Your task to perform on an android device: Clear all items from cart on amazon. Search for logitech g pro on amazon, select the first entry, add it to the cart, then select checkout. Image 0: 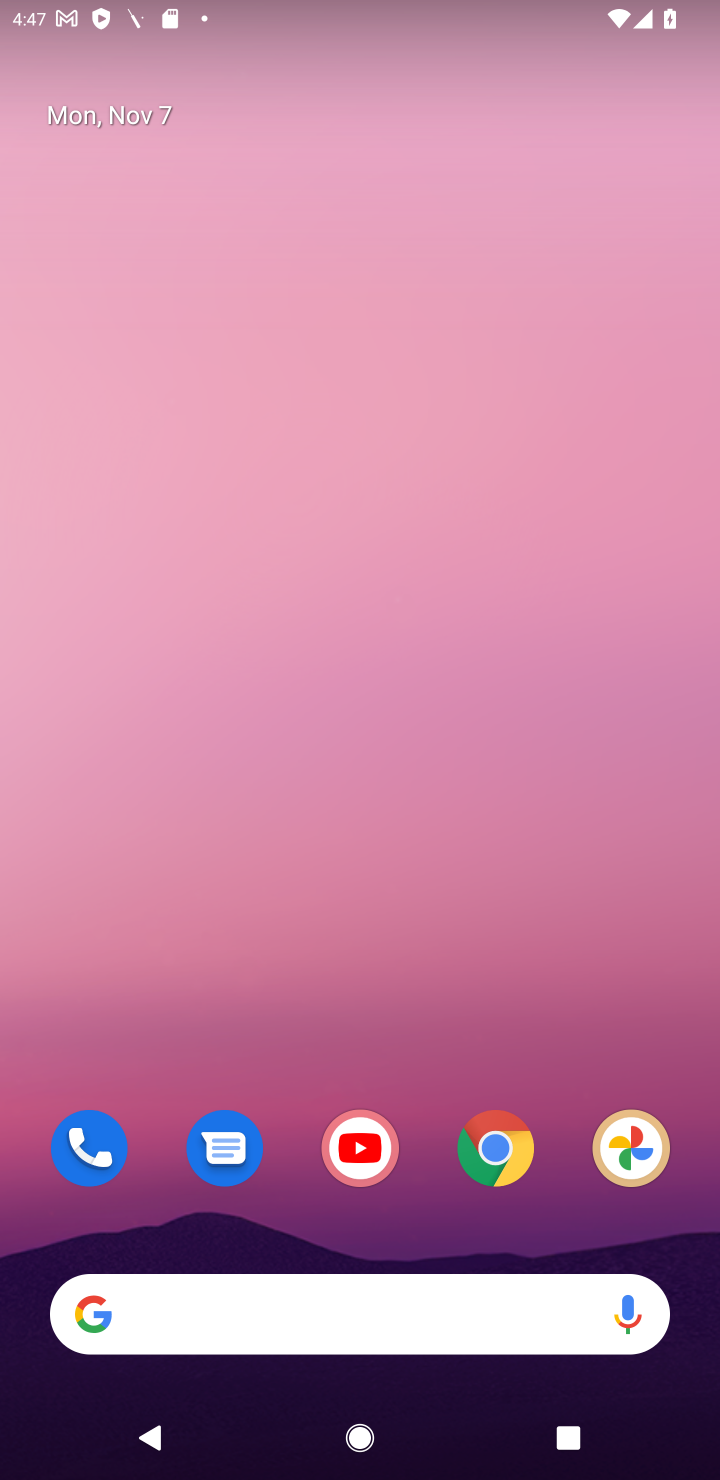
Step 0: click (494, 1151)
Your task to perform on an android device: Clear all items from cart on amazon. Search for logitech g pro on amazon, select the first entry, add it to the cart, then select checkout. Image 1: 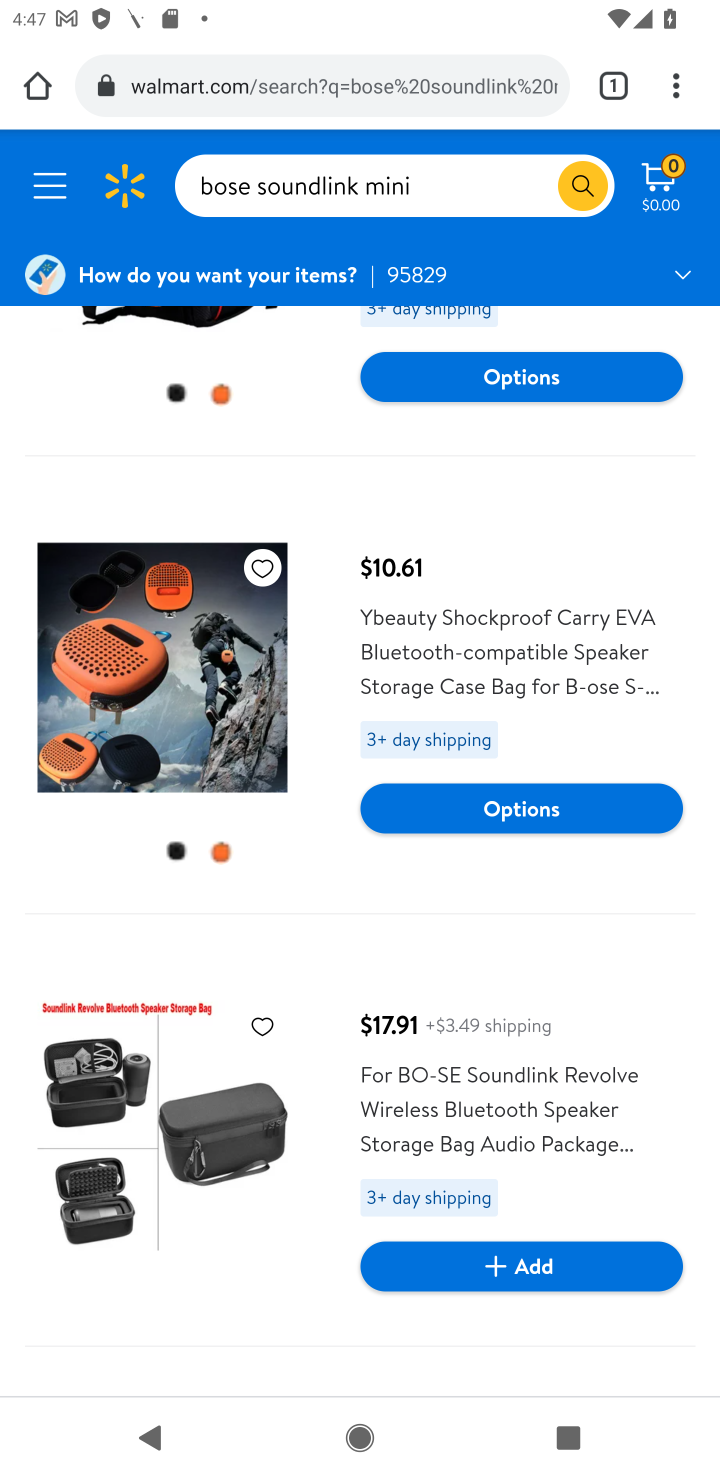
Step 1: click (382, 56)
Your task to perform on an android device: Clear all items from cart on amazon. Search for logitech g pro on amazon, select the first entry, add it to the cart, then select checkout. Image 2: 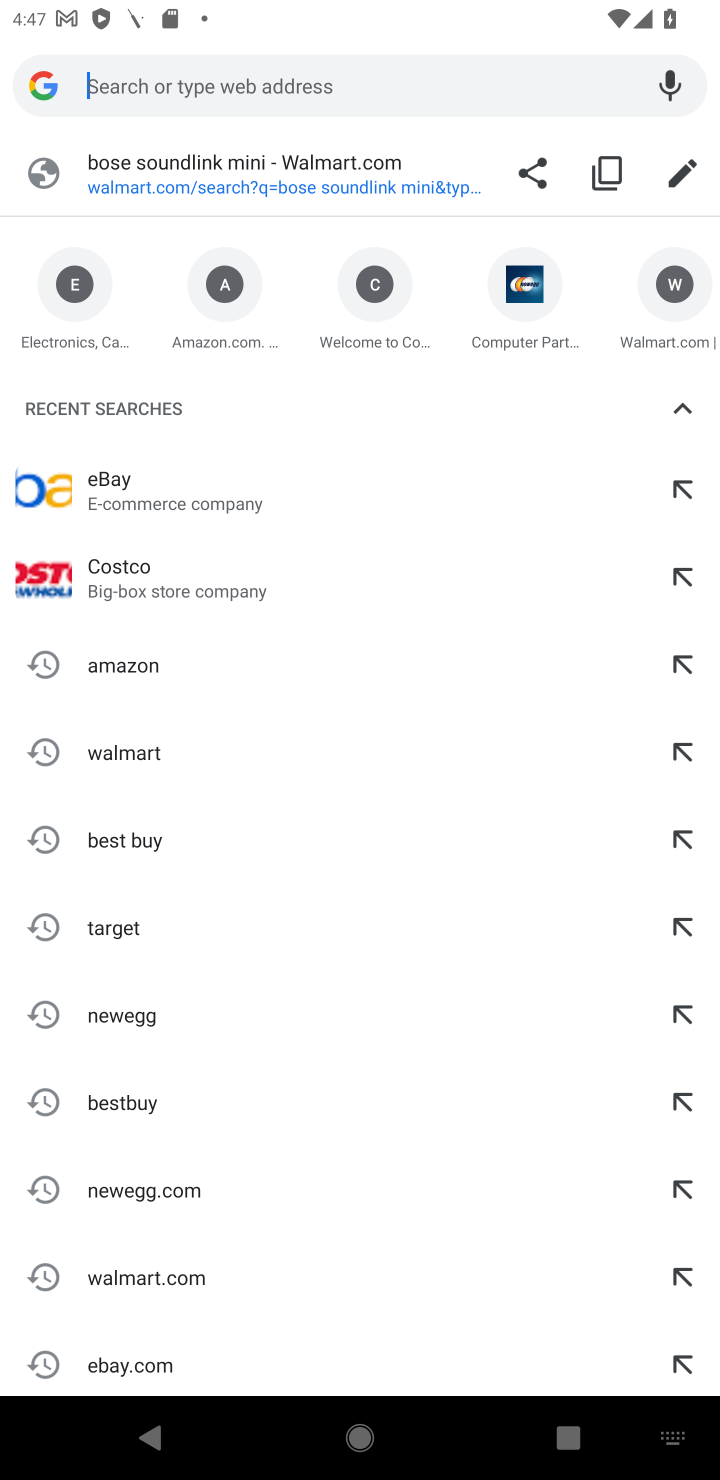
Step 2: click (106, 671)
Your task to perform on an android device: Clear all items from cart on amazon. Search for logitech g pro on amazon, select the first entry, add it to the cart, then select checkout. Image 3: 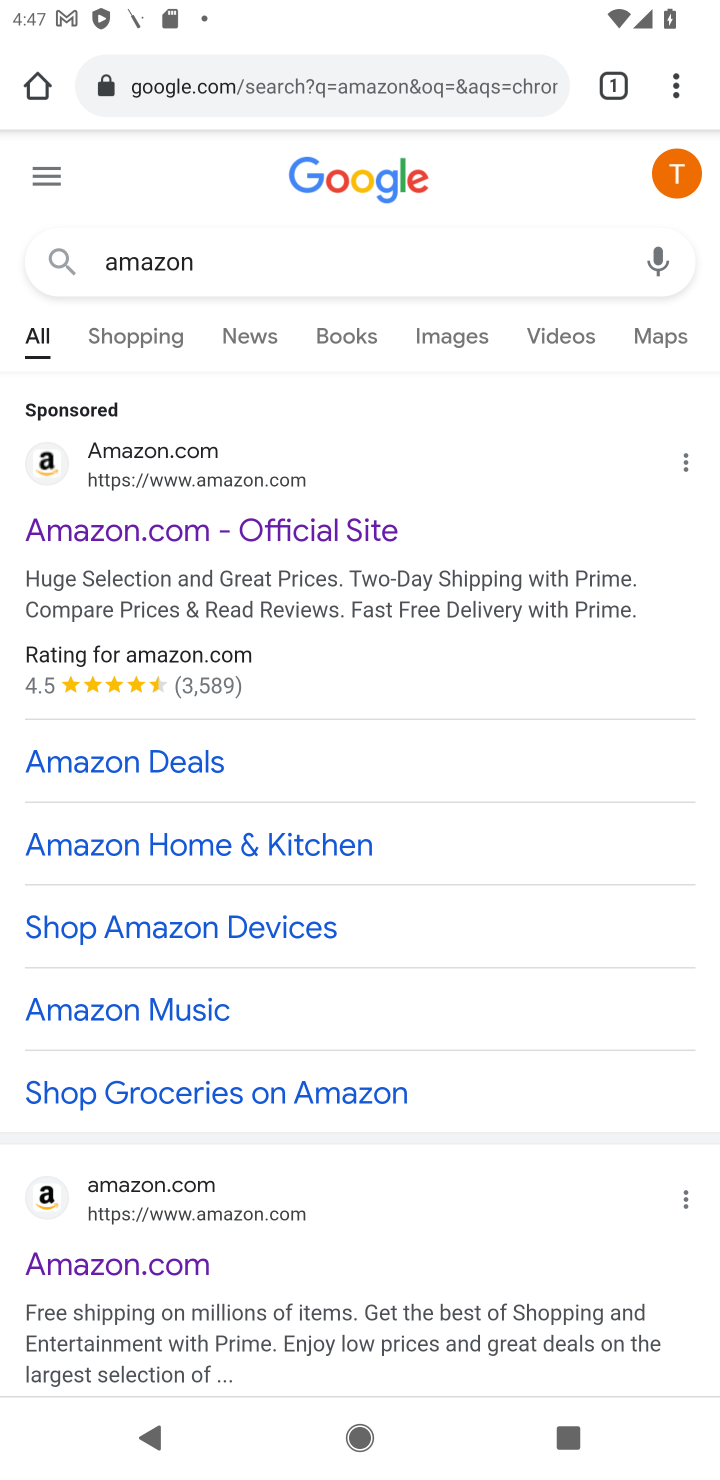
Step 3: click (116, 531)
Your task to perform on an android device: Clear all items from cart on amazon. Search for logitech g pro on amazon, select the first entry, add it to the cart, then select checkout. Image 4: 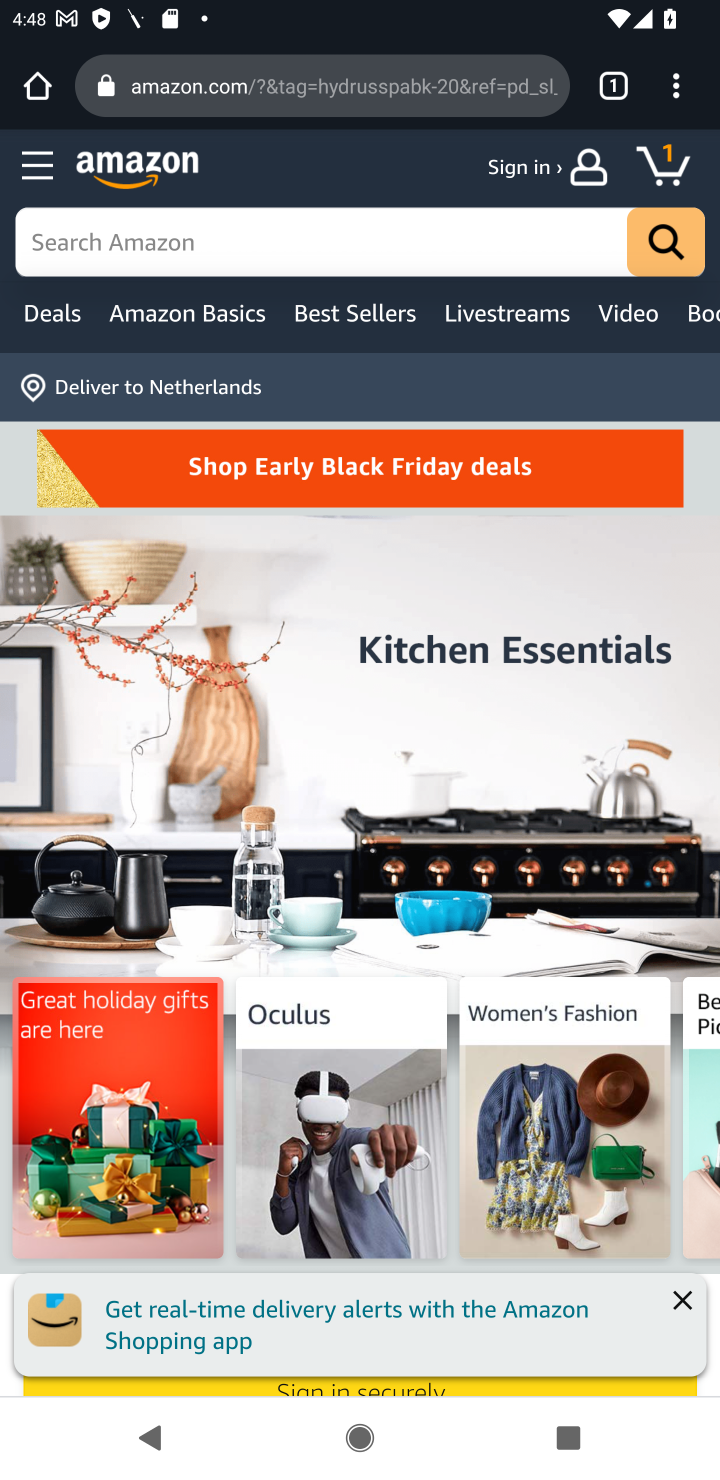
Step 4: click (661, 159)
Your task to perform on an android device: Clear all items from cart on amazon. Search for logitech g pro on amazon, select the first entry, add it to the cart, then select checkout. Image 5: 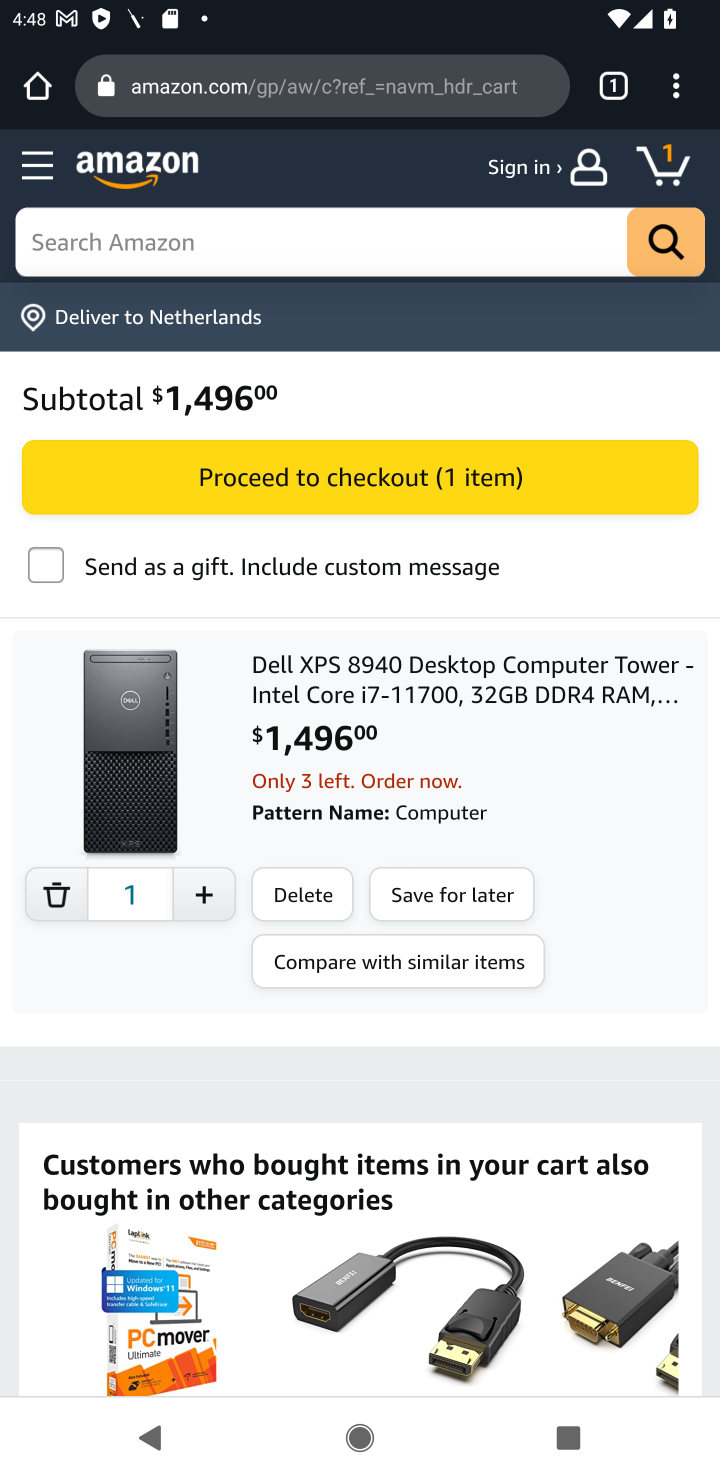
Step 5: click (53, 896)
Your task to perform on an android device: Clear all items from cart on amazon. Search for logitech g pro on amazon, select the first entry, add it to the cart, then select checkout. Image 6: 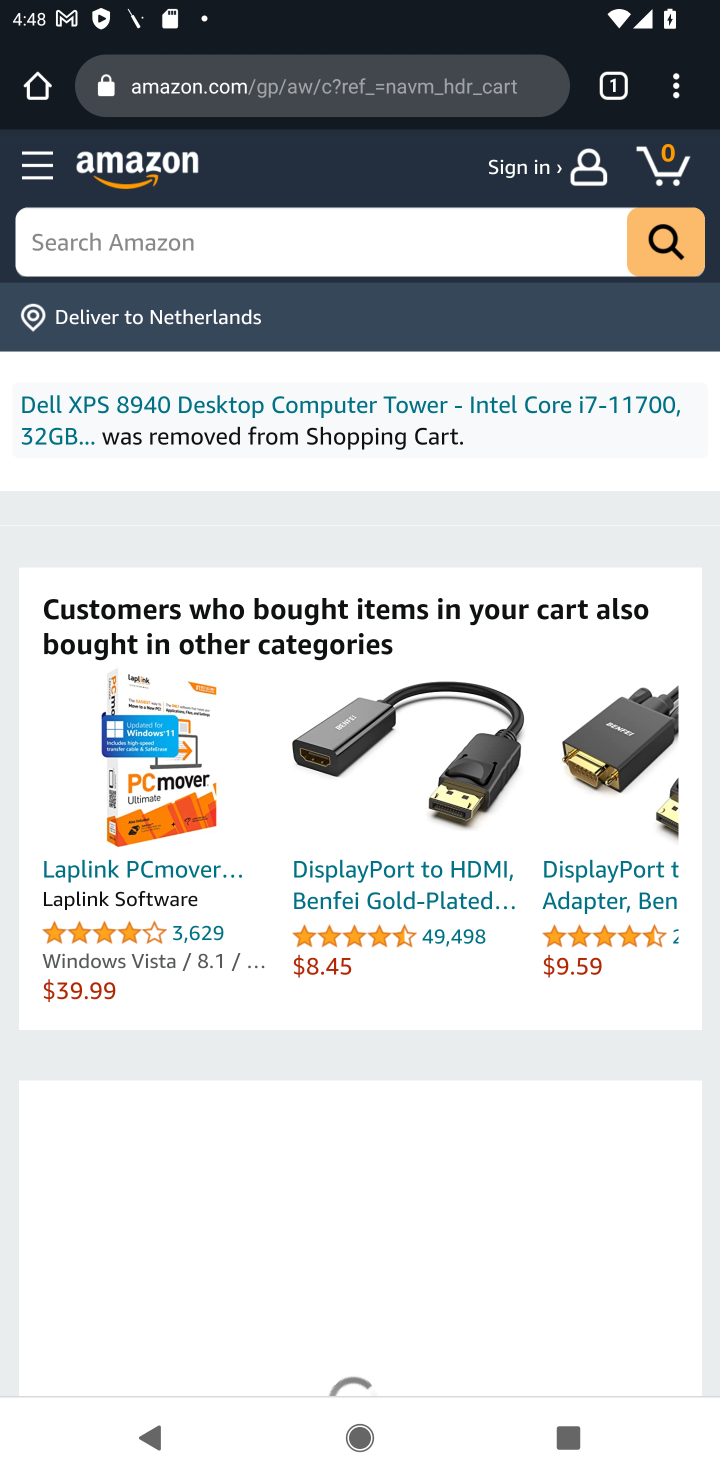
Step 6: click (143, 227)
Your task to perform on an android device: Clear all items from cart on amazon. Search for logitech g pro on amazon, select the first entry, add it to the cart, then select checkout. Image 7: 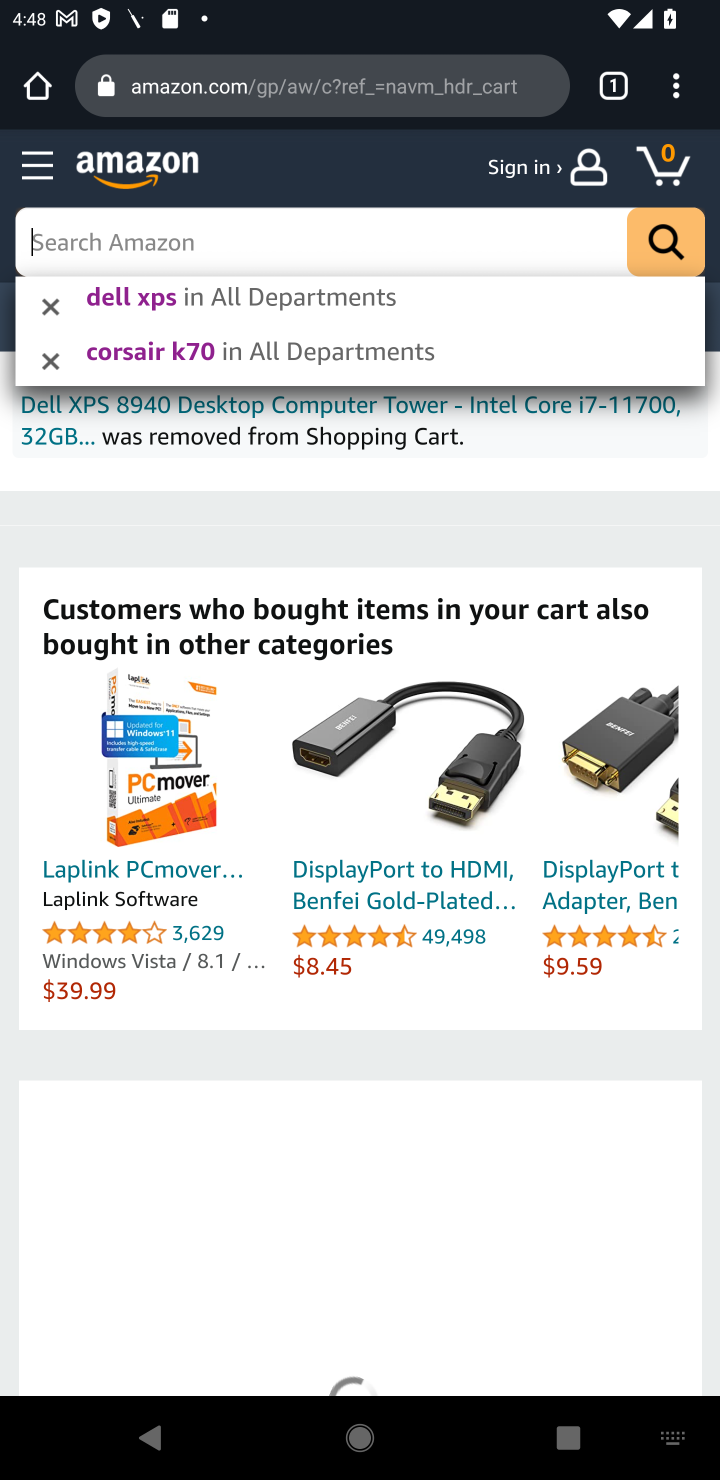
Step 7: type "logitech g pro"
Your task to perform on an android device: Clear all items from cart on amazon. Search for logitech g pro on amazon, select the first entry, add it to the cart, then select checkout. Image 8: 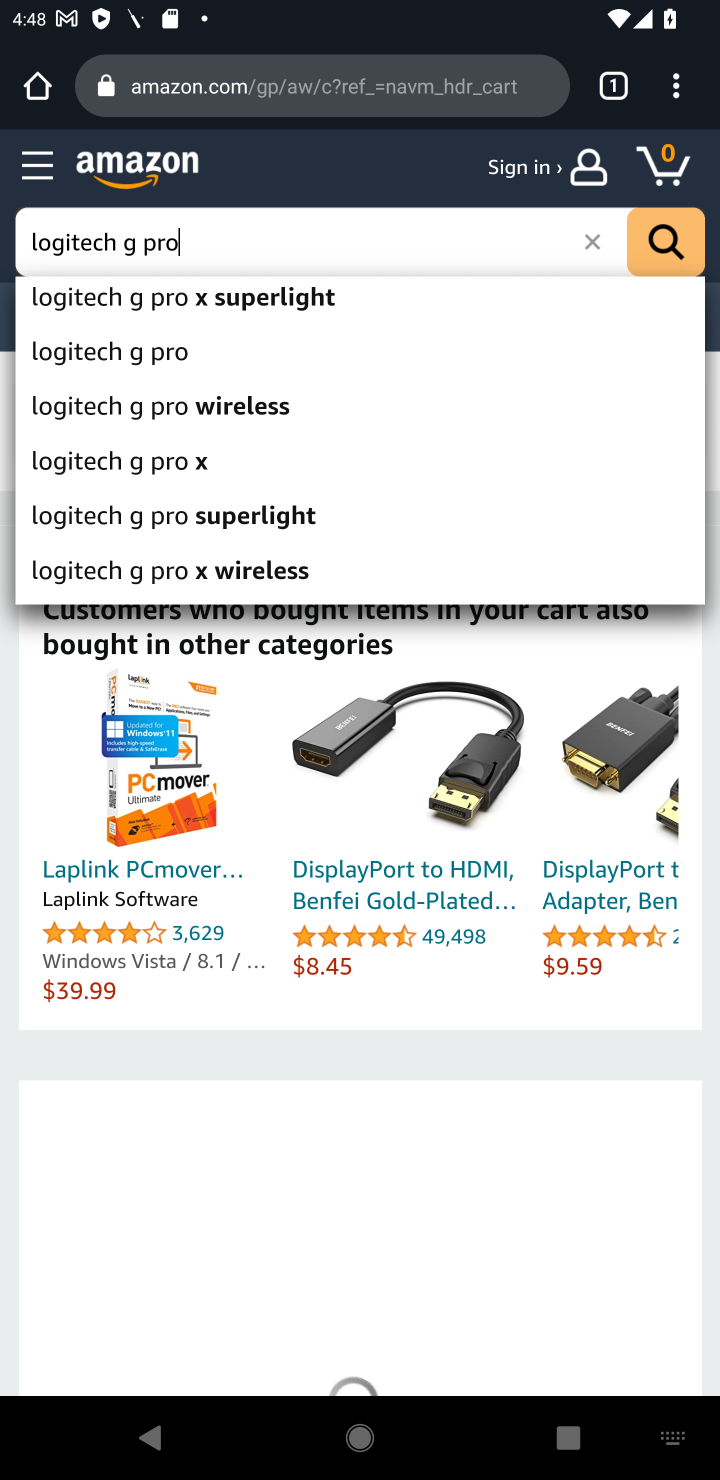
Step 8: click (101, 345)
Your task to perform on an android device: Clear all items from cart on amazon. Search for logitech g pro on amazon, select the first entry, add it to the cart, then select checkout. Image 9: 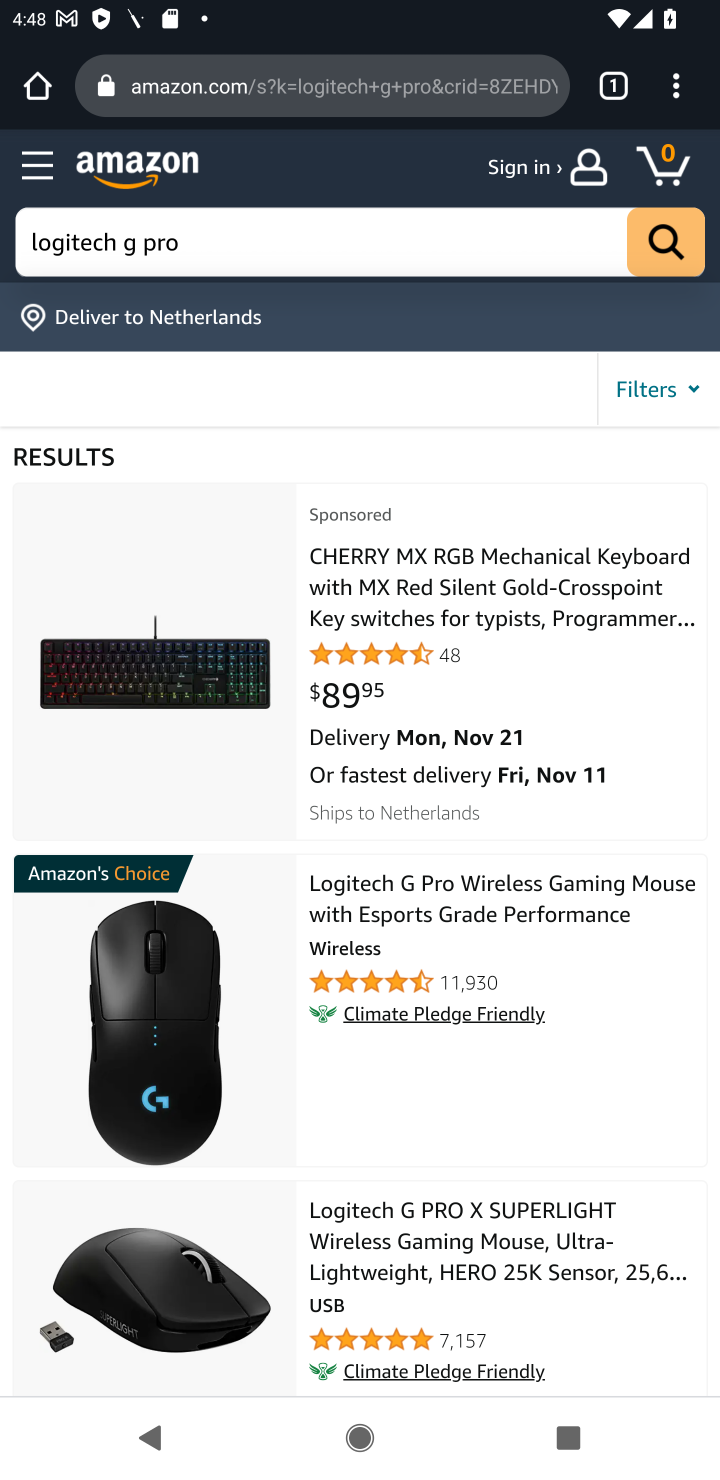
Step 9: drag from (448, 1232) to (554, 498)
Your task to perform on an android device: Clear all items from cart on amazon. Search for logitech g pro on amazon, select the first entry, add it to the cart, then select checkout. Image 10: 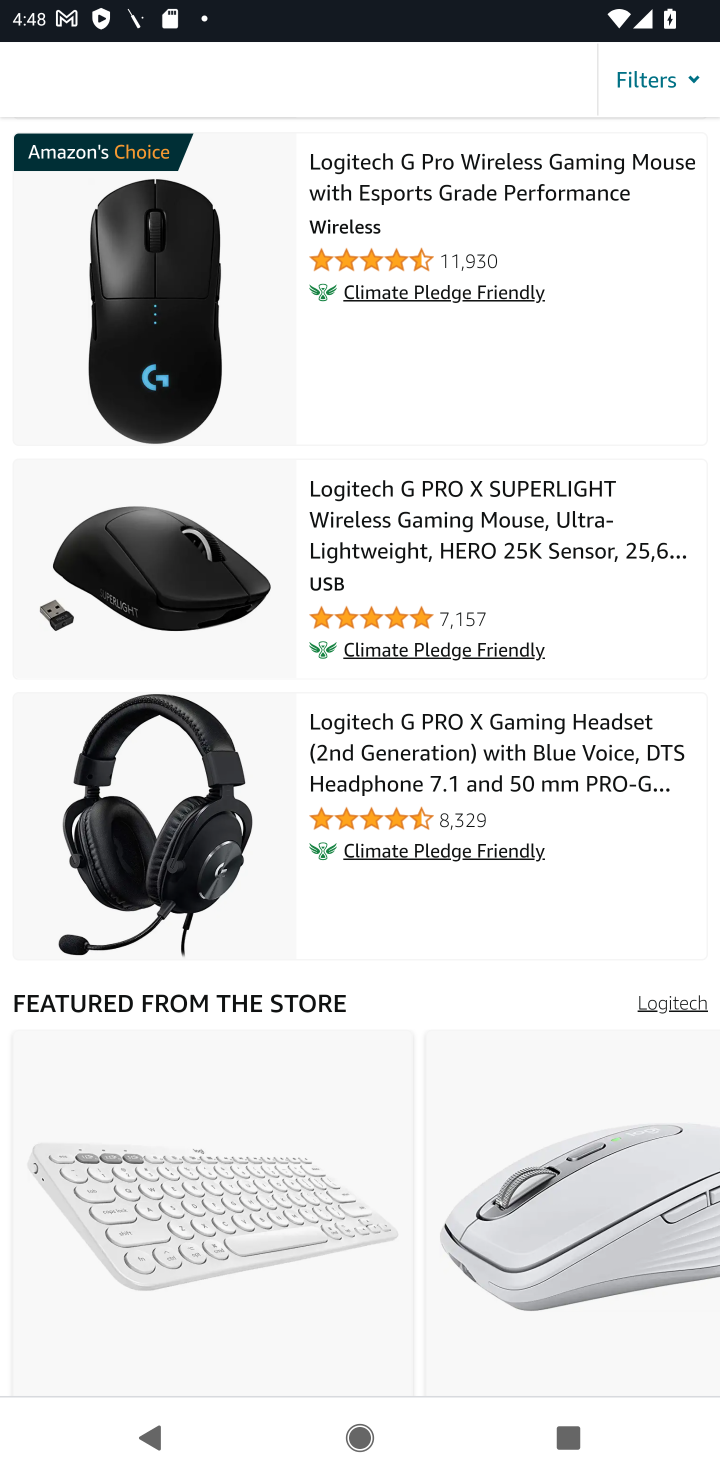
Step 10: drag from (398, 1077) to (496, 230)
Your task to perform on an android device: Clear all items from cart on amazon. Search for logitech g pro on amazon, select the first entry, add it to the cart, then select checkout. Image 11: 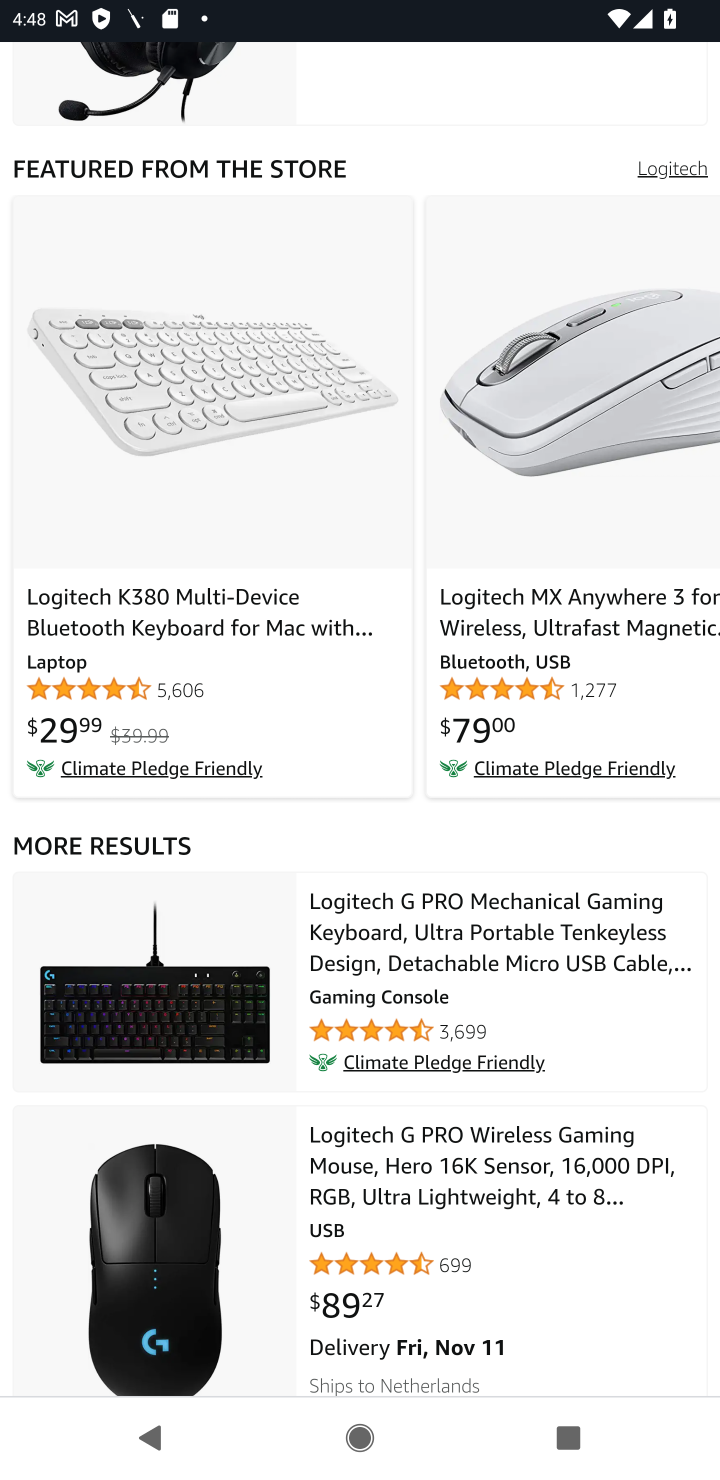
Step 11: drag from (436, 1230) to (486, 683)
Your task to perform on an android device: Clear all items from cart on amazon. Search for logitech g pro on amazon, select the first entry, add it to the cart, then select checkout. Image 12: 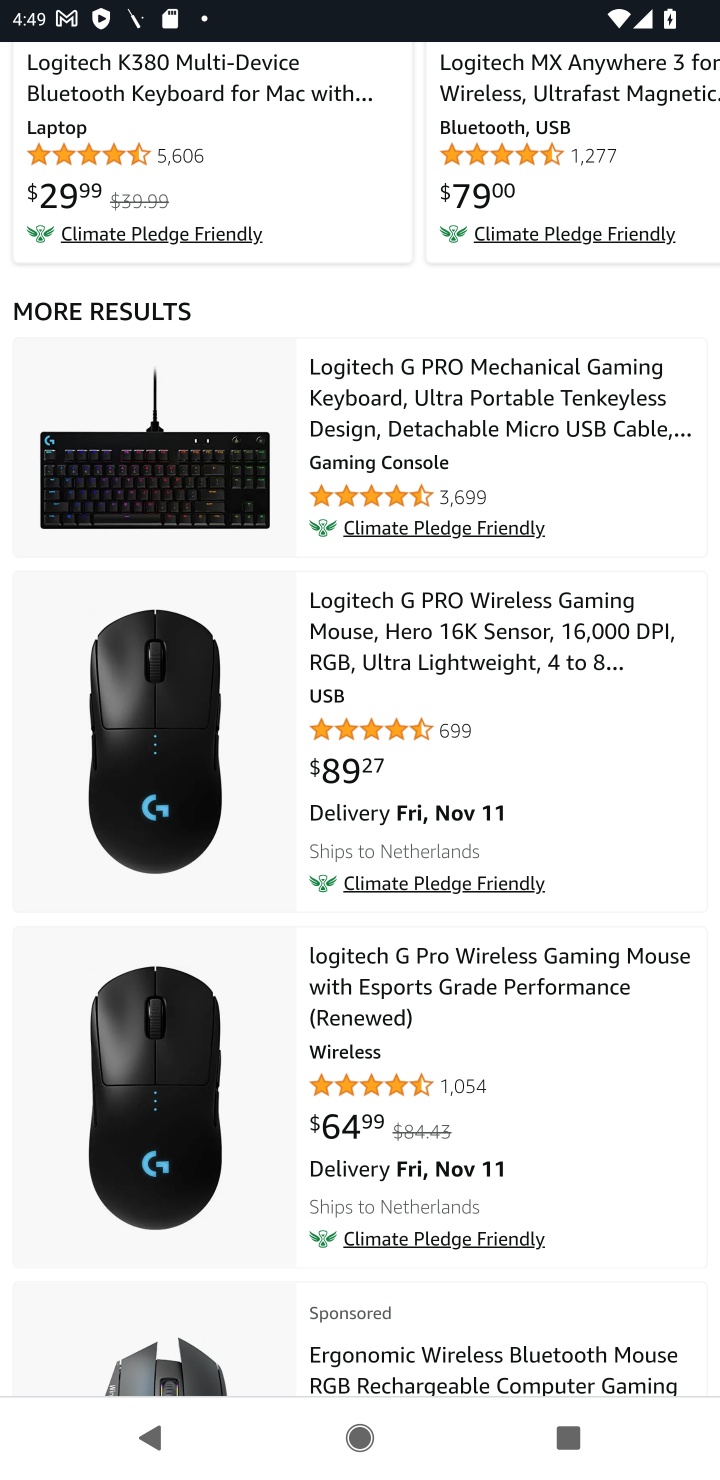
Step 12: click (400, 639)
Your task to perform on an android device: Clear all items from cart on amazon. Search for logitech g pro on amazon, select the first entry, add it to the cart, then select checkout. Image 13: 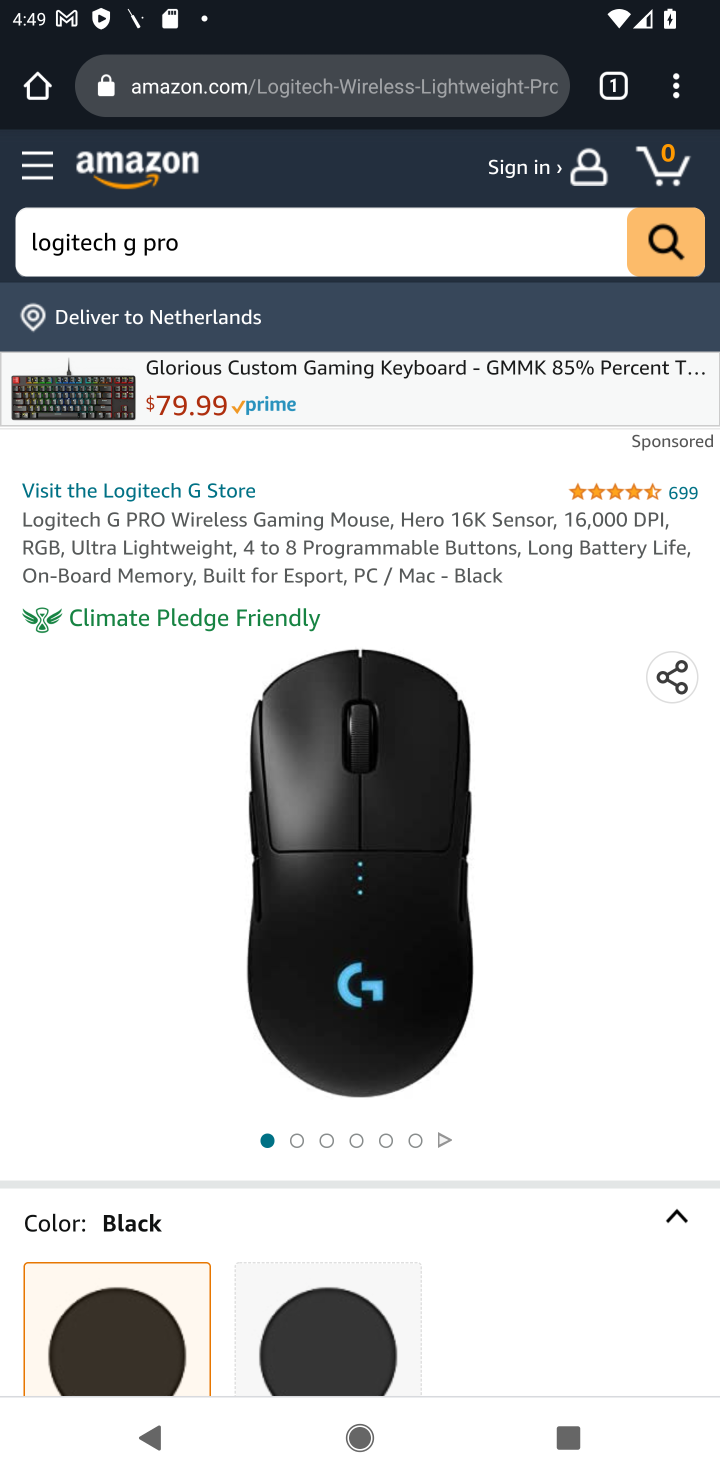
Step 13: drag from (553, 1226) to (450, 557)
Your task to perform on an android device: Clear all items from cart on amazon. Search for logitech g pro on amazon, select the first entry, add it to the cart, then select checkout. Image 14: 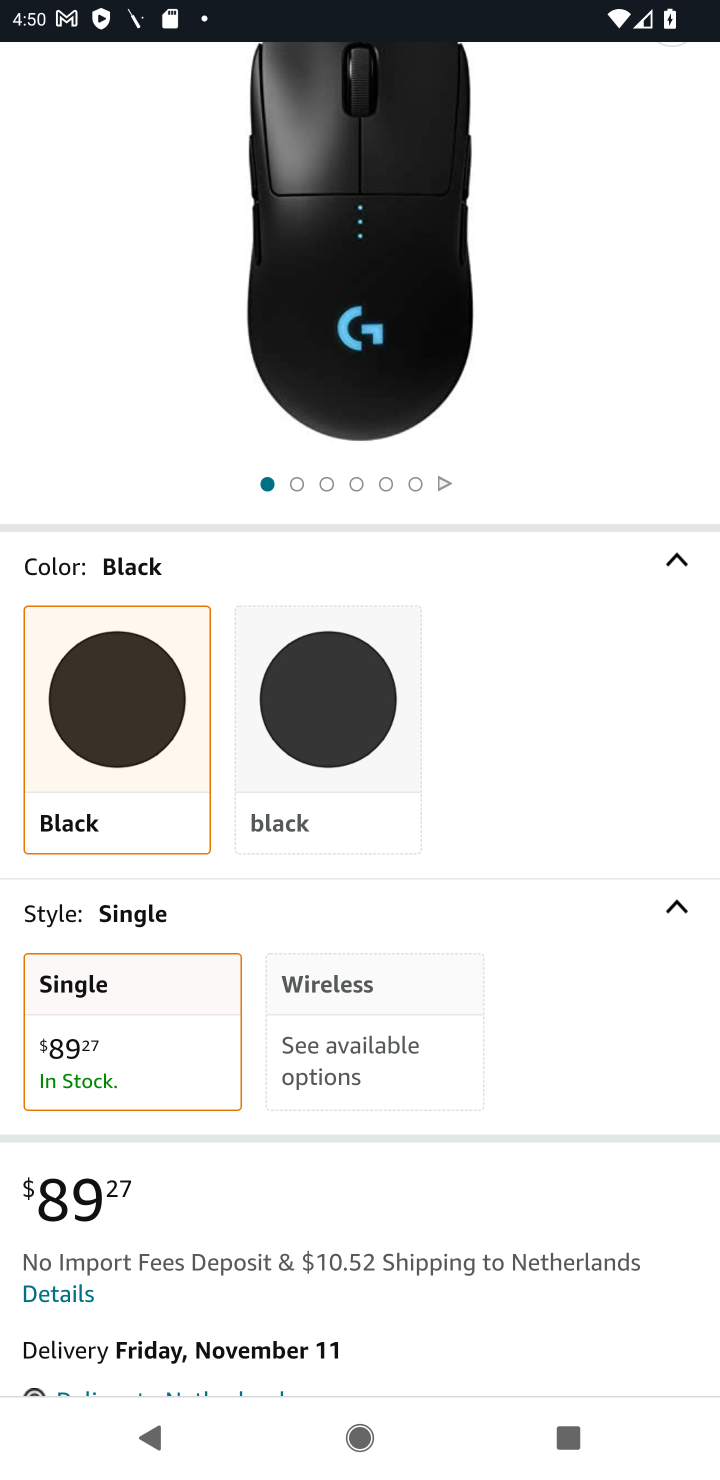
Step 14: drag from (445, 1144) to (466, 63)
Your task to perform on an android device: Clear all items from cart on amazon. Search for logitech g pro on amazon, select the first entry, add it to the cart, then select checkout. Image 15: 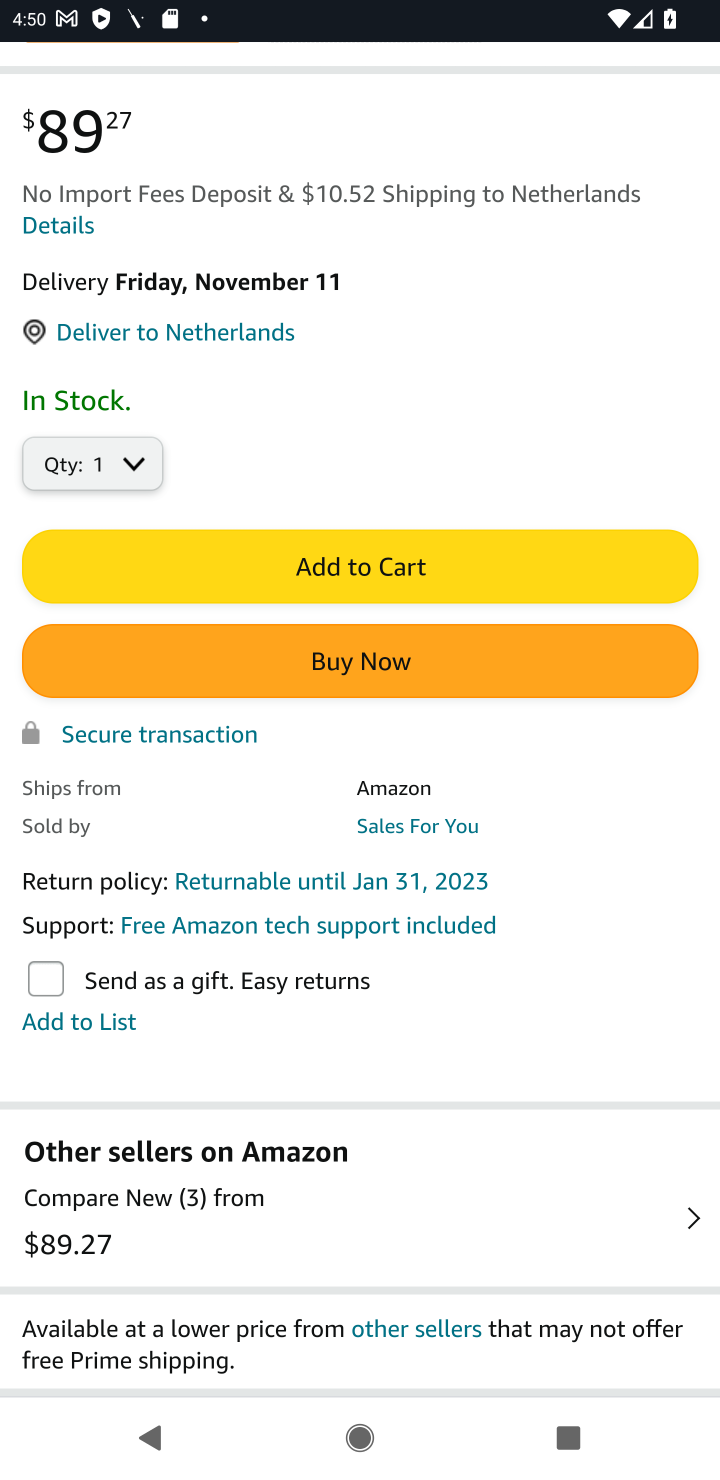
Step 15: click (348, 565)
Your task to perform on an android device: Clear all items from cart on amazon. Search for logitech g pro on amazon, select the first entry, add it to the cart, then select checkout. Image 16: 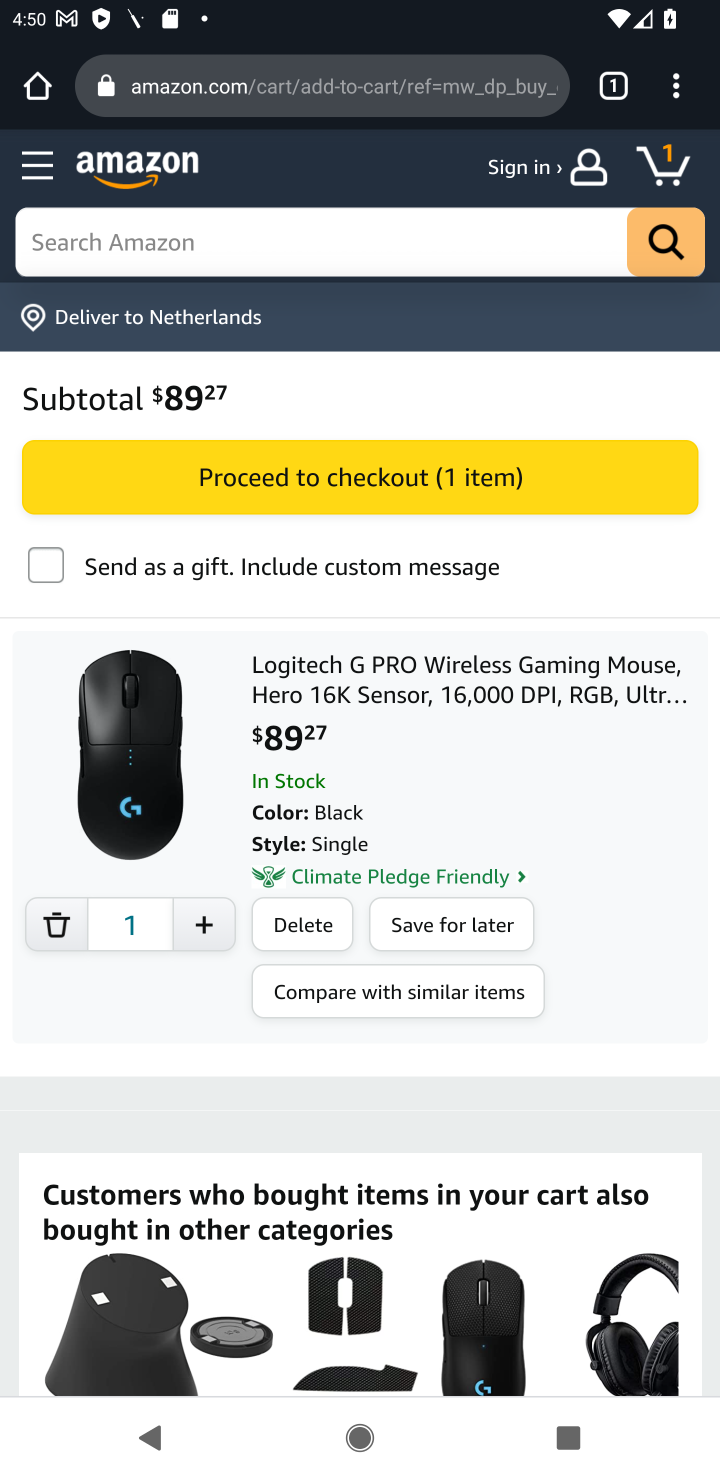
Step 16: click (364, 467)
Your task to perform on an android device: Clear all items from cart on amazon. Search for logitech g pro on amazon, select the first entry, add it to the cart, then select checkout. Image 17: 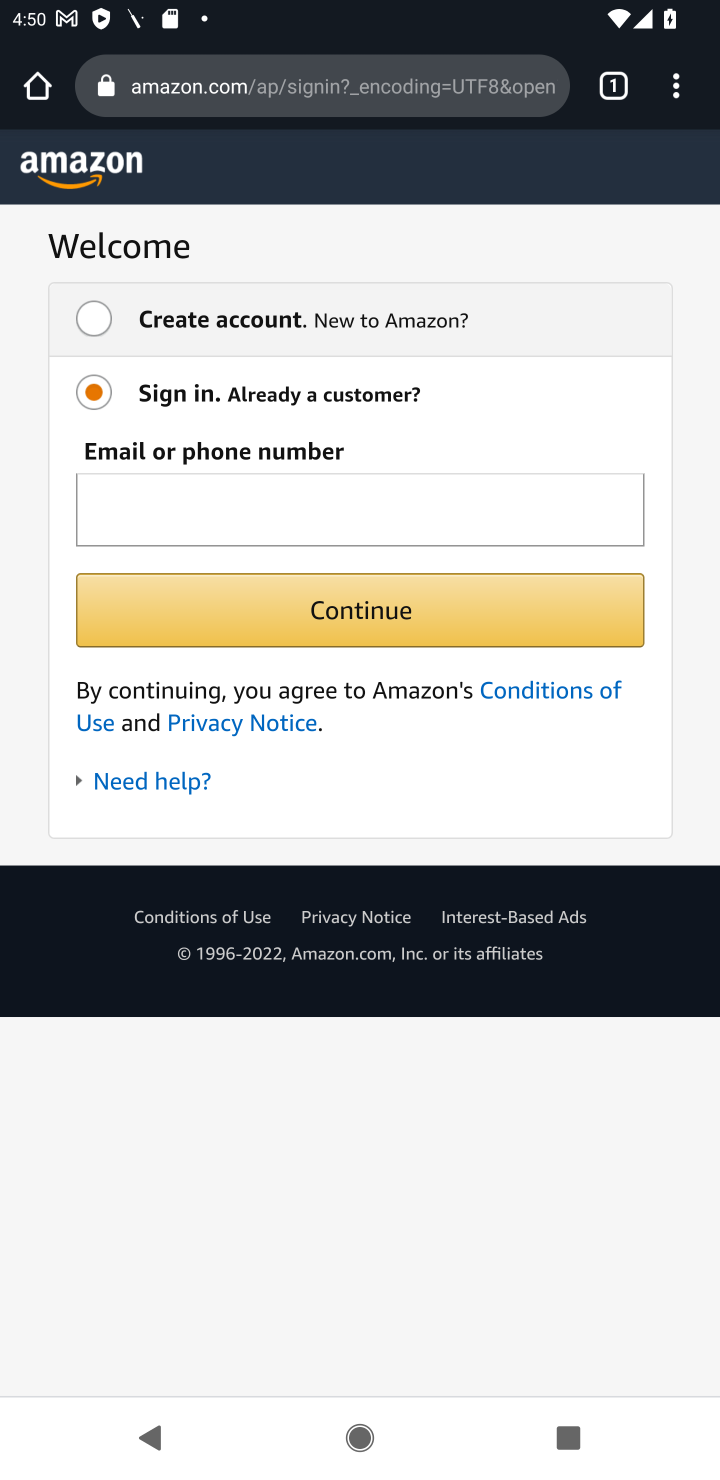
Step 17: task complete